Your task to perform on an android device: change your default location settings in chrome Image 0: 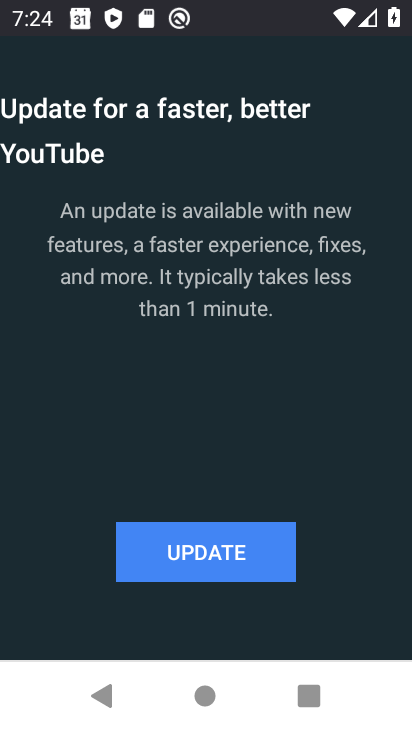
Step 0: press home button
Your task to perform on an android device: change your default location settings in chrome Image 1: 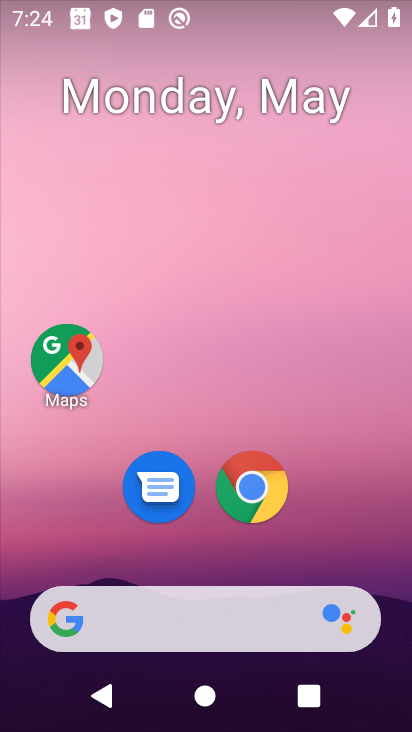
Step 1: drag from (232, 653) to (225, 276)
Your task to perform on an android device: change your default location settings in chrome Image 2: 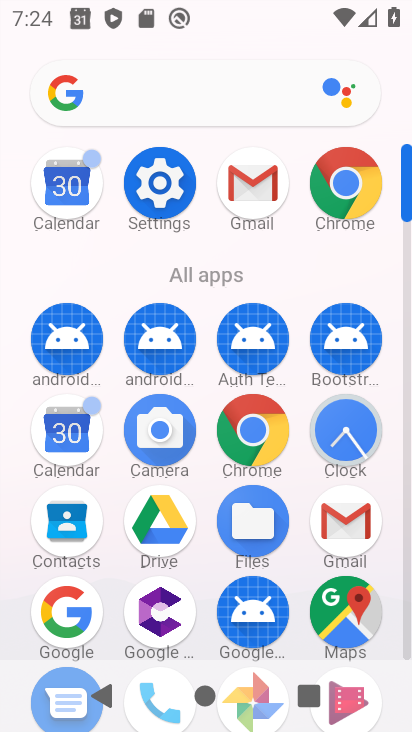
Step 2: click (354, 203)
Your task to perform on an android device: change your default location settings in chrome Image 3: 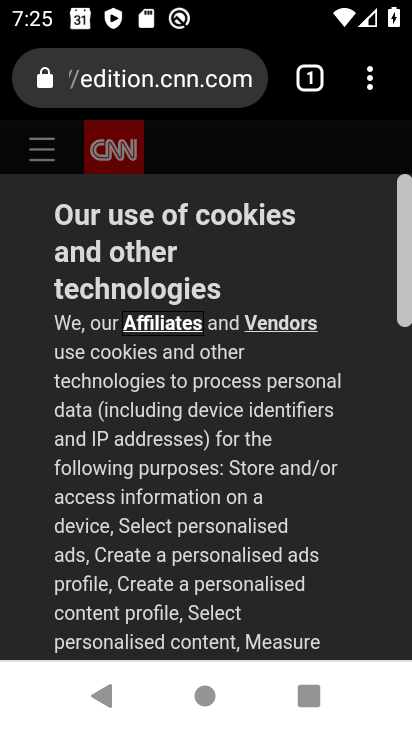
Step 3: click (373, 80)
Your task to perform on an android device: change your default location settings in chrome Image 4: 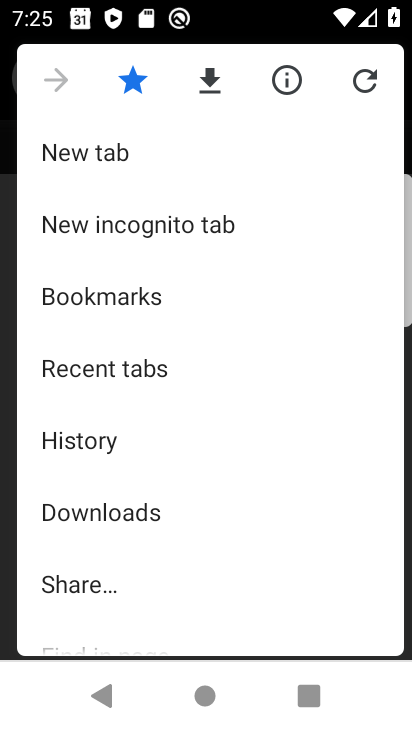
Step 4: drag from (112, 583) to (101, 201)
Your task to perform on an android device: change your default location settings in chrome Image 5: 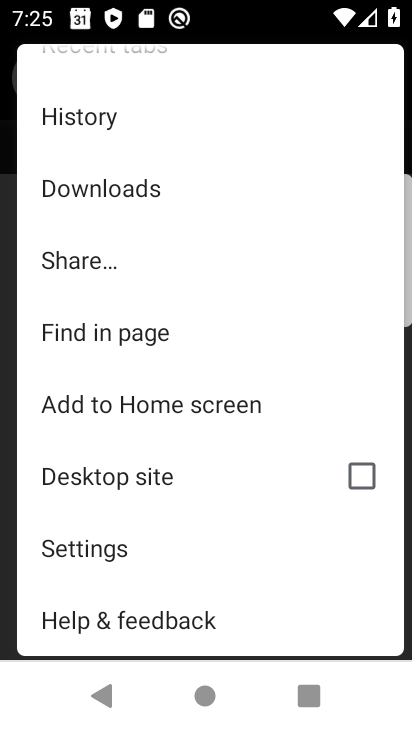
Step 5: click (105, 543)
Your task to perform on an android device: change your default location settings in chrome Image 6: 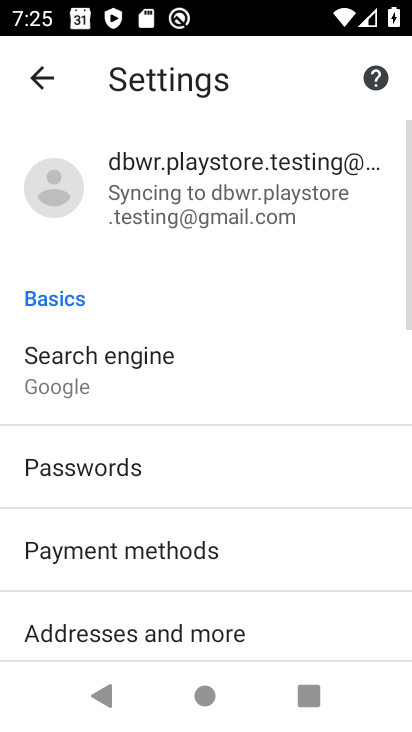
Step 6: drag from (220, 555) to (212, 148)
Your task to perform on an android device: change your default location settings in chrome Image 7: 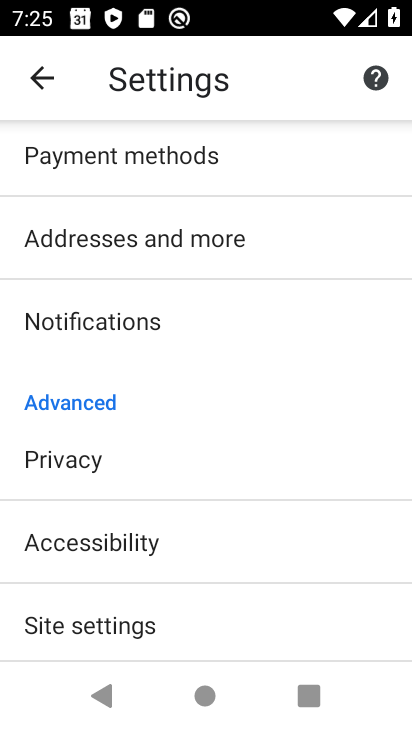
Step 7: click (95, 622)
Your task to perform on an android device: change your default location settings in chrome Image 8: 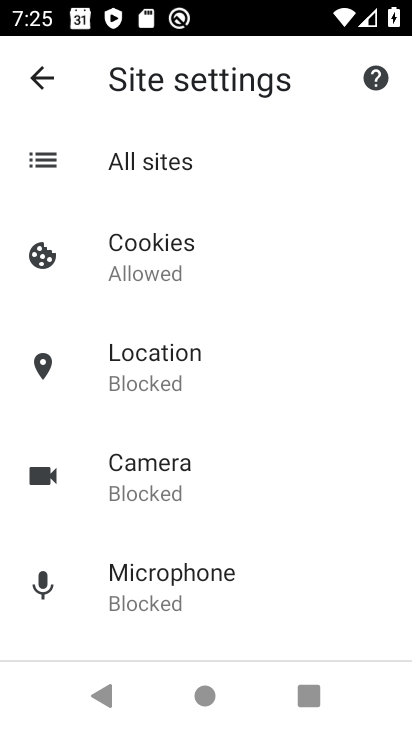
Step 8: click (150, 367)
Your task to perform on an android device: change your default location settings in chrome Image 9: 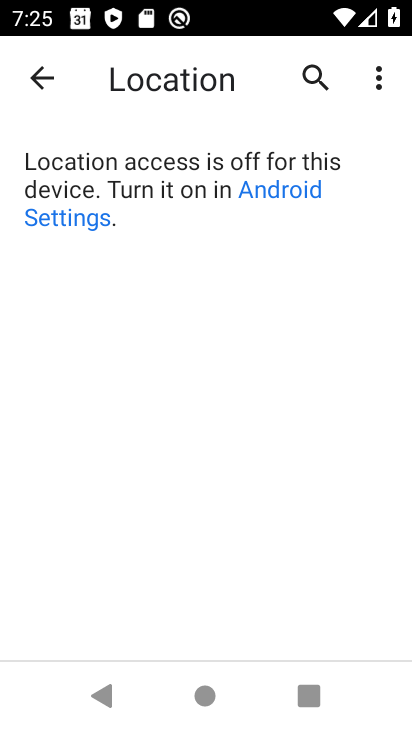
Step 9: task complete